Your task to perform on an android device: turn on bluetooth scan Image 0: 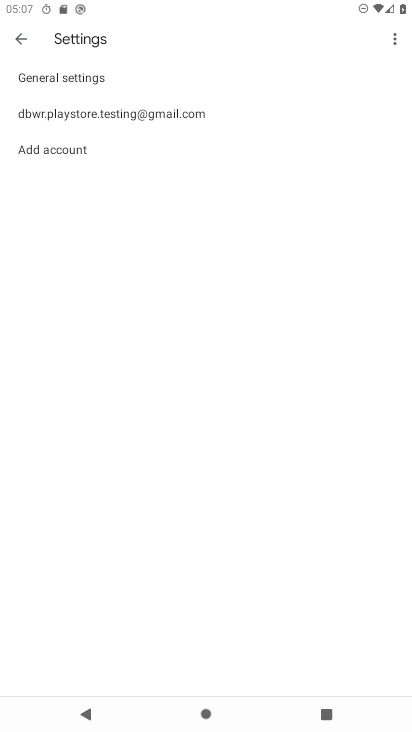
Step 0: press home button
Your task to perform on an android device: turn on bluetooth scan Image 1: 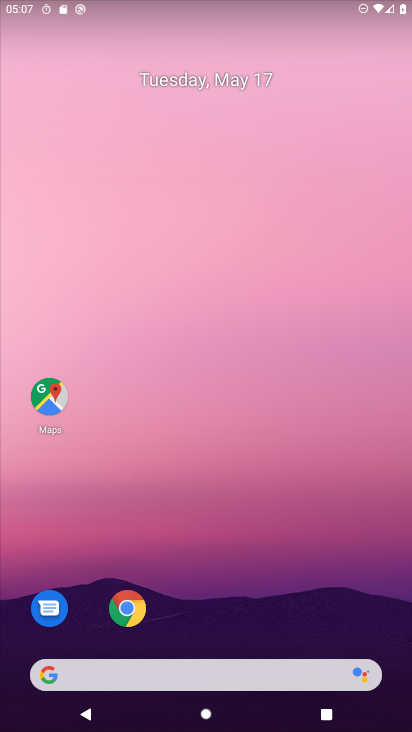
Step 1: drag from (155, 661) to (211, 255)
Your task to perform on an android device: turn on bluetooth scan Image 2: 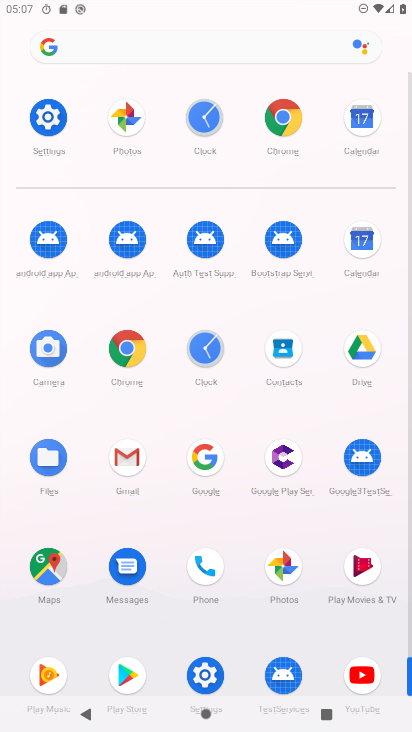
Step 2: click (51, 121)
Your task to perform on an android device: turn on bluetooth scan Image 3: 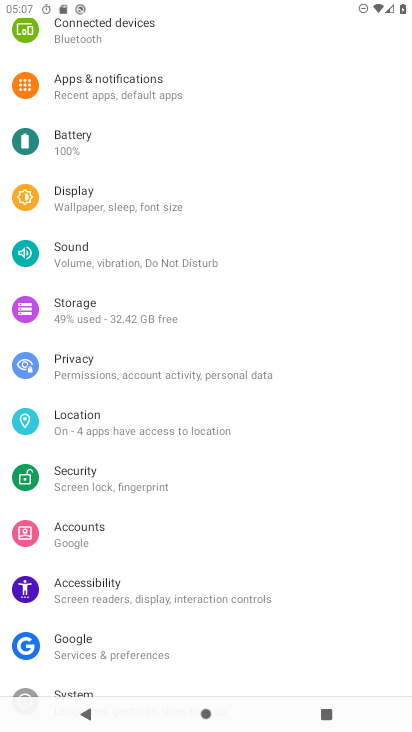
Step 3: click (94, 417)
Your task to perform on an android device: turn on bluetooth scan Image 4: 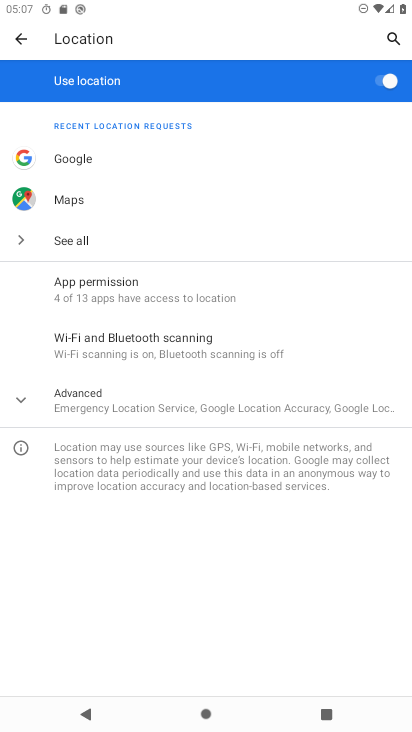
Step 4: click (95, 343)
Your task to perform on an android device: turn on bluetooth scan Image 5: 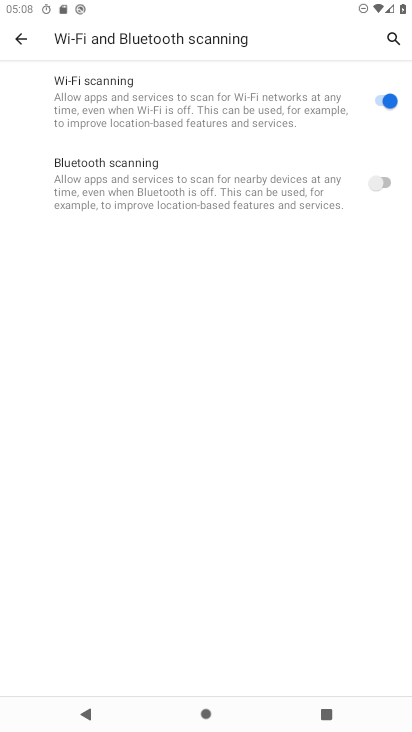
Step 5: click (382, 181)
Your task to perform on an android device: turn on bluetooth scan Image 6: 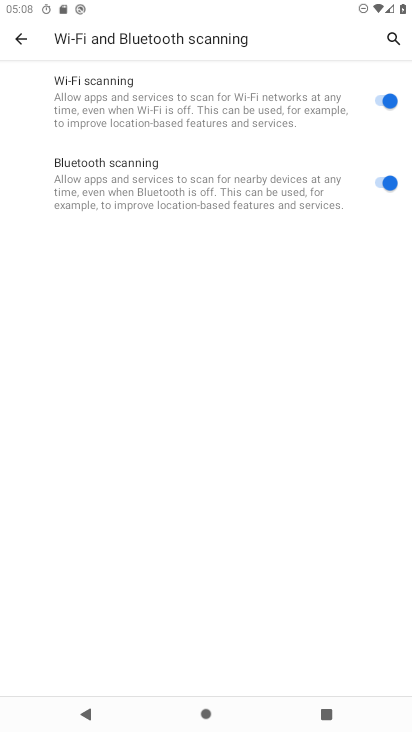
Step 6: task complete